Your task to perform on an android device: Go to Yahoo.com Image 0: 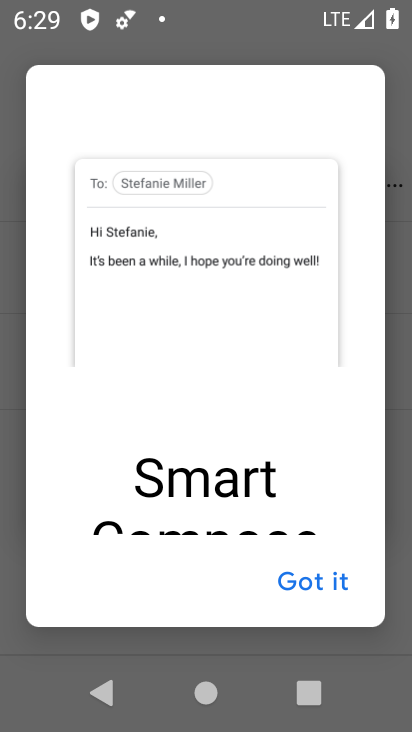
Step 0: press home button
Your task to perform on an android device: Go to Yahoo.com Image 1: 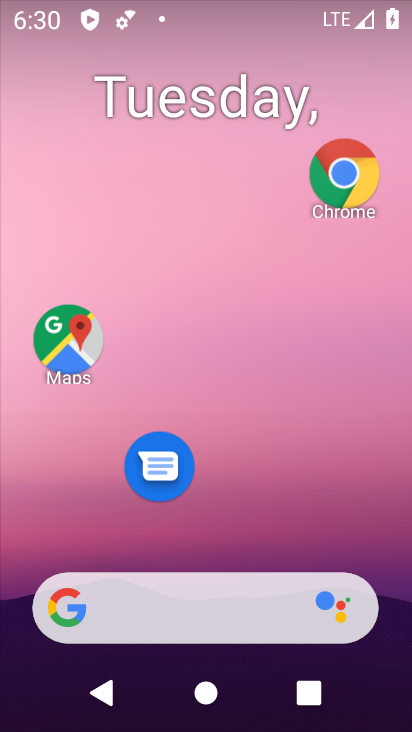
Step 1: click (342, 164)
Your task to perform on an android device: Go to Yahoo.com Image 2: 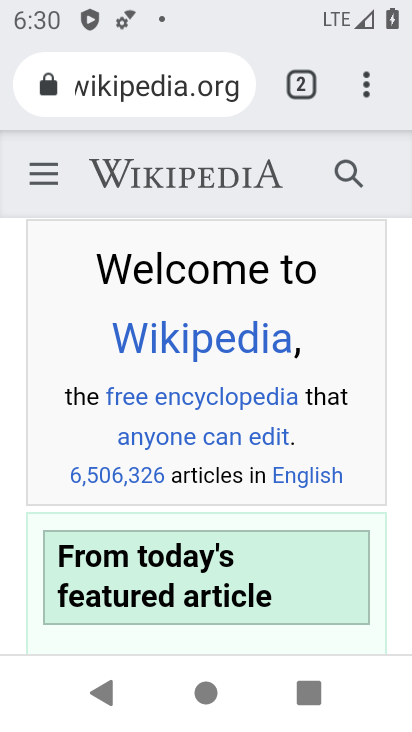
Step 2: click (211, 87)
Your task to perform on an android device: Go to Yahoo.com Image 3: 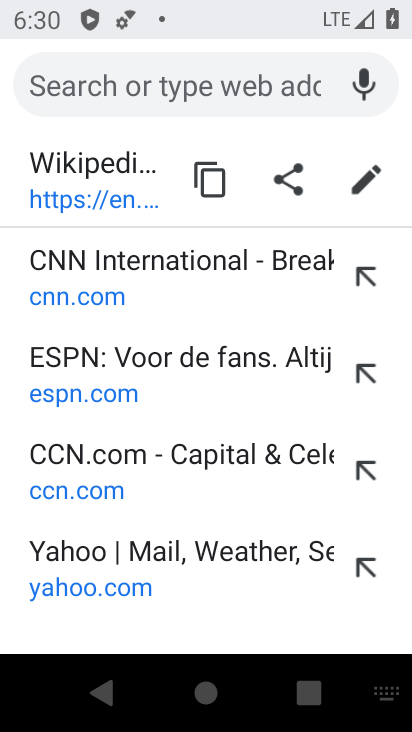
Step 3: type "Yahoo.com"
Your task to perform on an android device: Go to Yahoo.com Image 4: 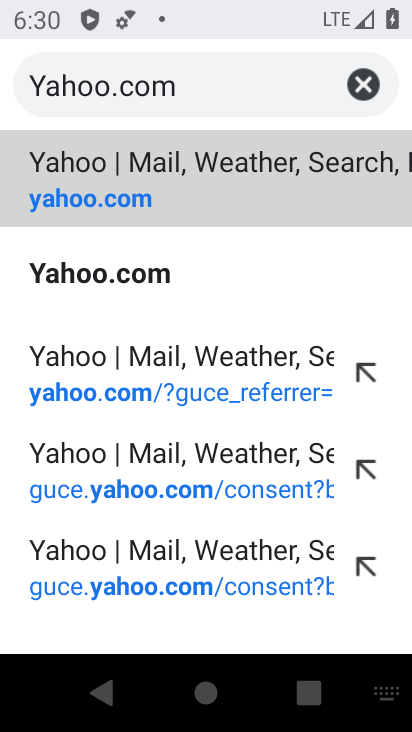
Step 4: click (169, 197)
Your task to perform on an android device: Go to Yahoo.com Image 5: 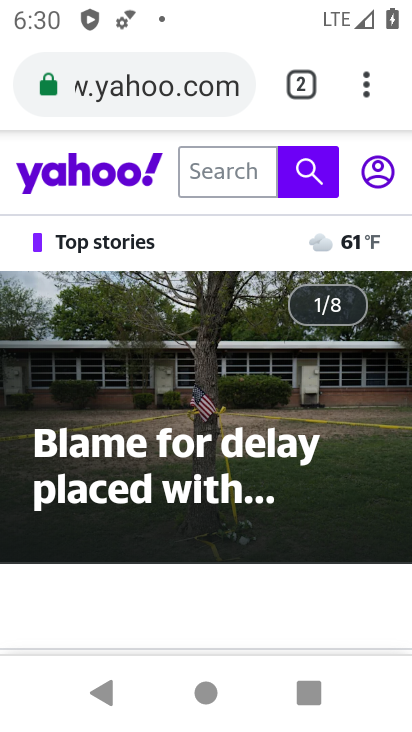
Step 5: task complete